Your task to perform on an android device: clear history in the chrome app Image 0: 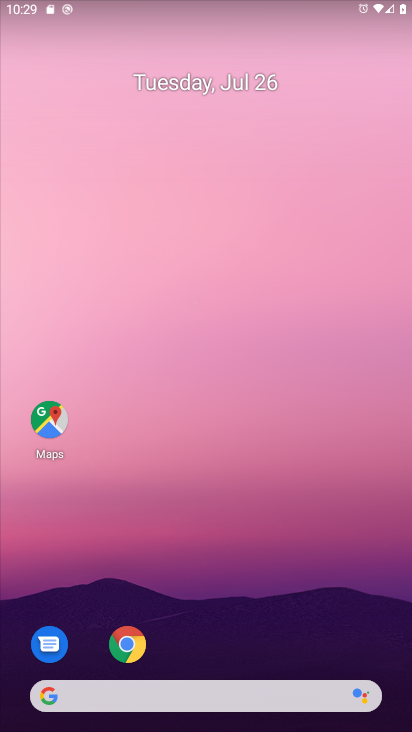
Step 0: click (128, 648)
Your task to perform on an android device: clear history in the chrome app Image 1: 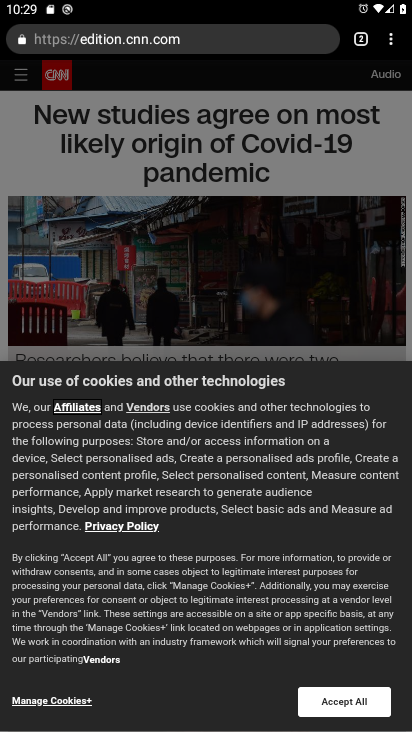
Step 1: click (389, 38)
Your task to perform on an android device: clear history in the chrome app Image 2: 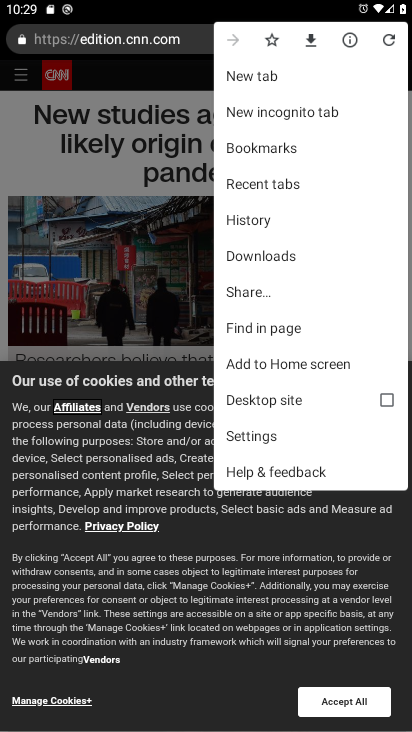
Step 2: click (254, 222)
Your task to perform on an android device: clear history in the chrome app Image 3: 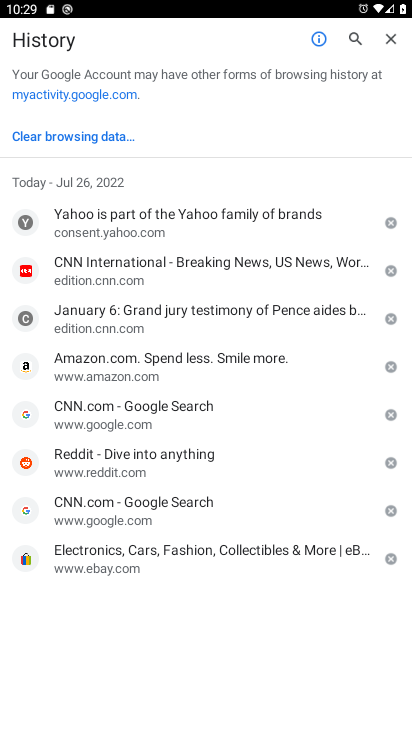
Step 3: click (78, 136)
Your task to perform on an android device: clear history in the chrome app Image 4: 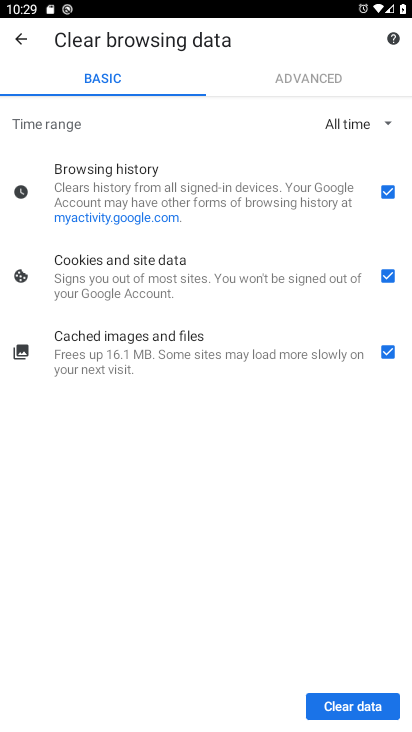
Step 4: click (367, 707)
Your task to perform on an android device: clear history in the chrome app Image 5: 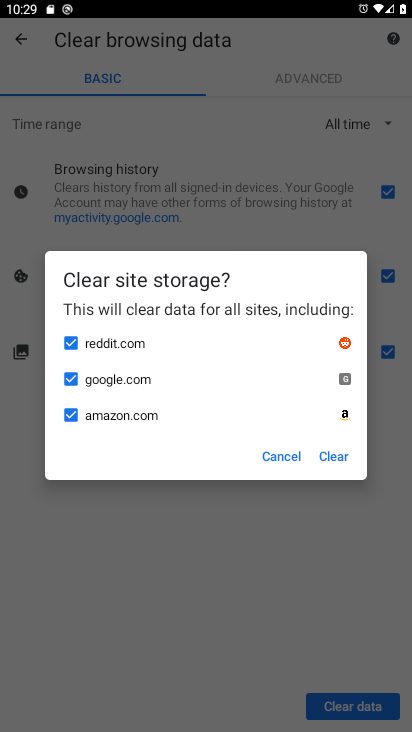
Step 5: click (341, 457)
Your task to perform on an android device: clear history in the chrome app Image 6: 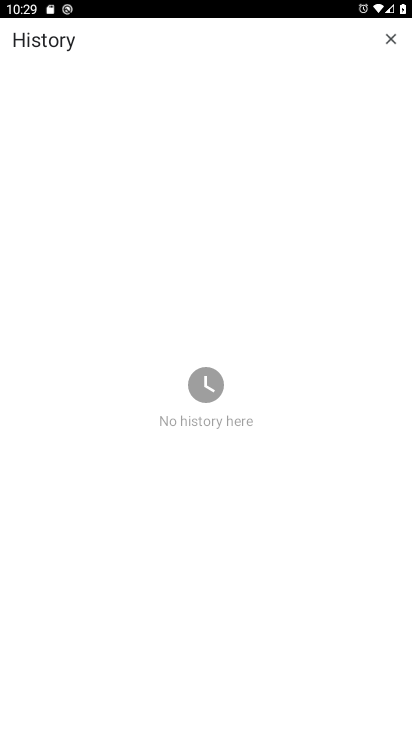
Step 6: task complete